Your task to perform on an android device: Search for seafood restaurants on Google Maps Image 0: 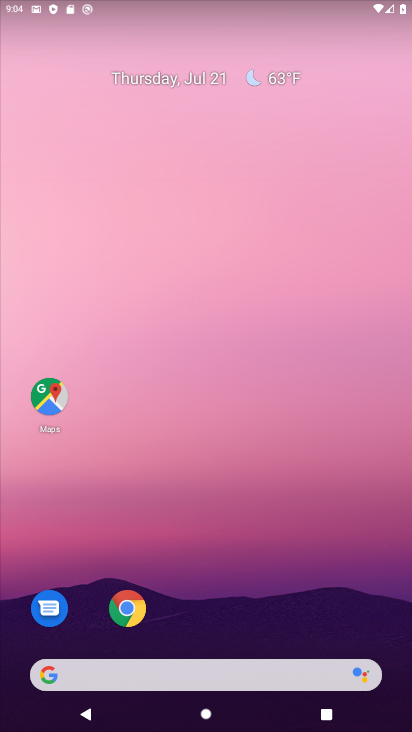
Step 0: drag from (261, 571) to (321, 352)
Your task to perform on an android device: Search for seafood restaurants on Google Maps Image 1: 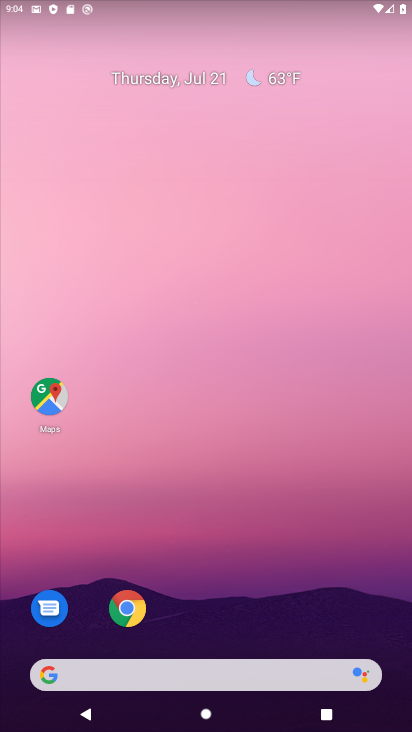
Step 1: drag from (284, 596) to (347, 179)
Your task to perform on an android device: Search for seafood restaurants on Google Maps Image 2: 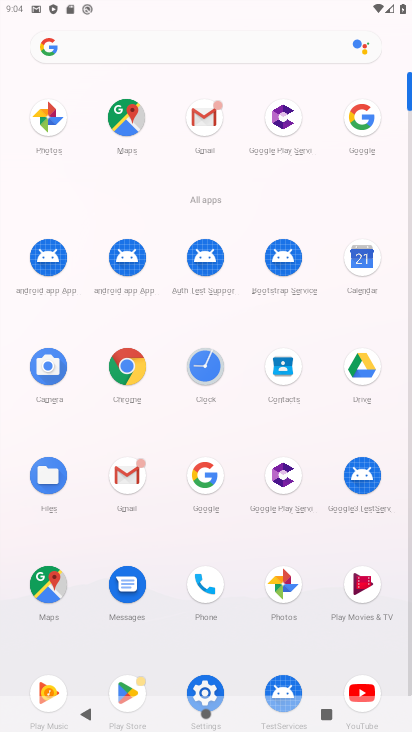
Step 2: click (47, 580)
Your task to perform on an android device: Search for seafood restaurants on Google Maps Image 3: 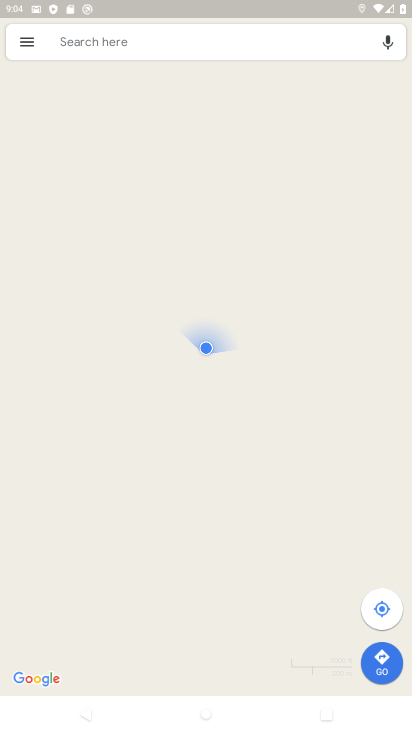
Step 3: click (207, 46)
Your task to perform on an android device: Search for seafood restaurants on Google Maps Image 4: 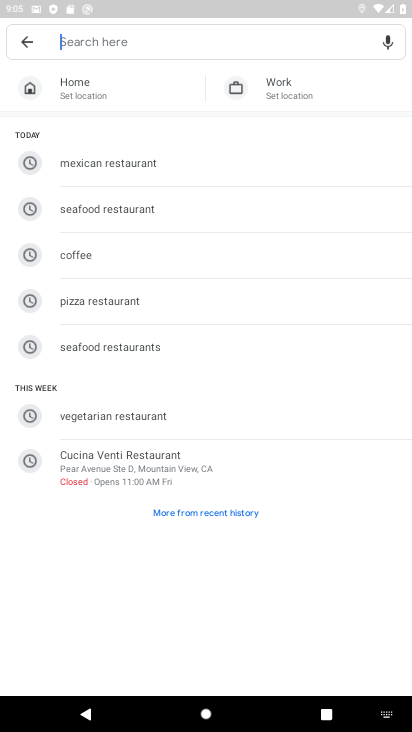
Step 4: click (139, 213)
Your task to perform on an android device: Search for seafood restaurants on Google Maps Image 5: 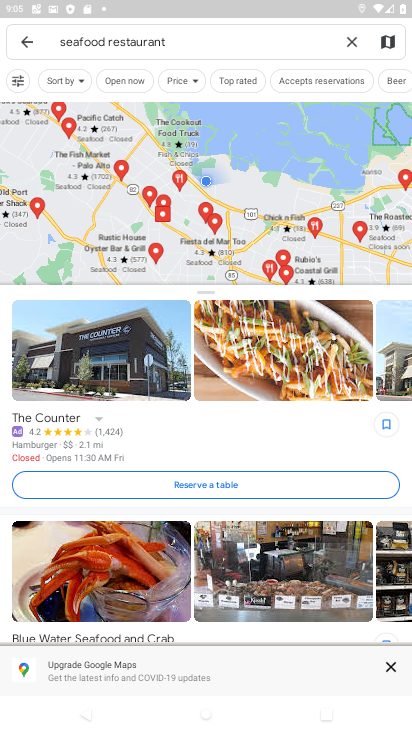
Step 5: task complete